Your task to perform on an android device: Open battery settings Image 0: 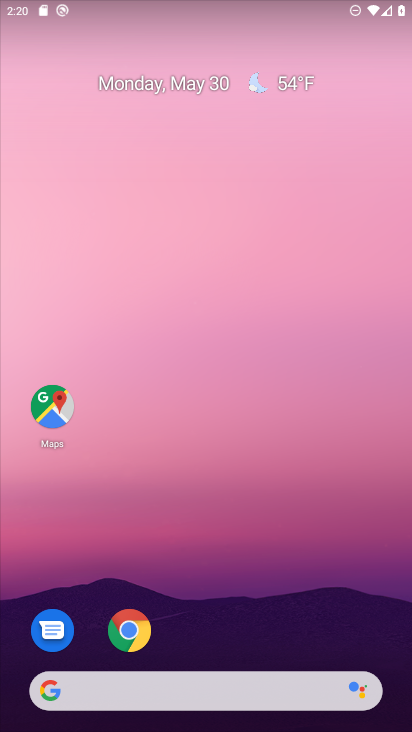
Step 0: press home button
Your task to perform on an android device: Open battery settings Image 1: 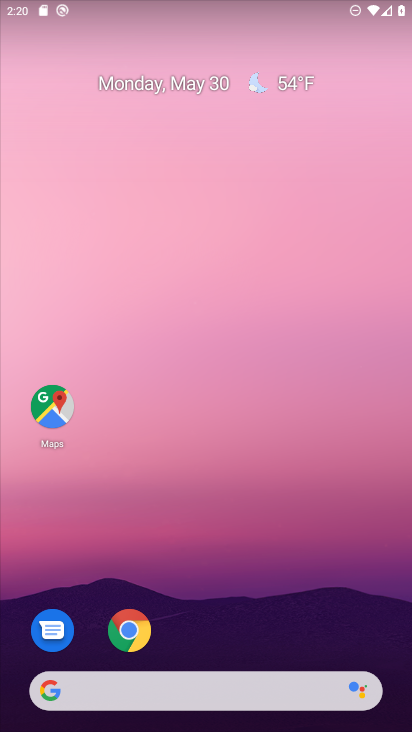
Step 1: drag from (270, 693) to (282, 51)
Your task to perform on an android device: Open battery settings Image 2: 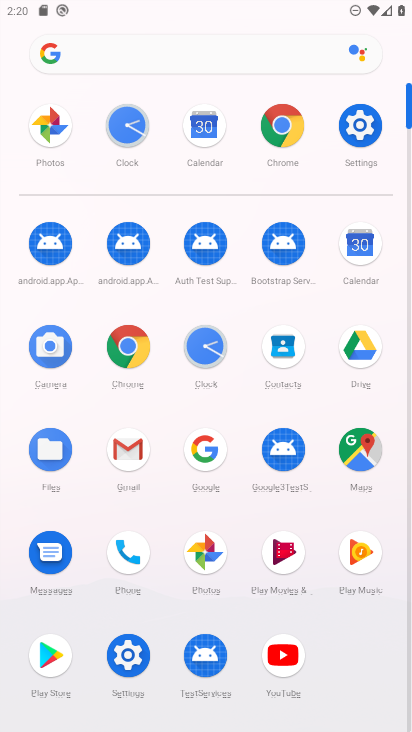
Step 2: click (126, 678)
Your task to perform on an android device: Open battery settings Image 3: 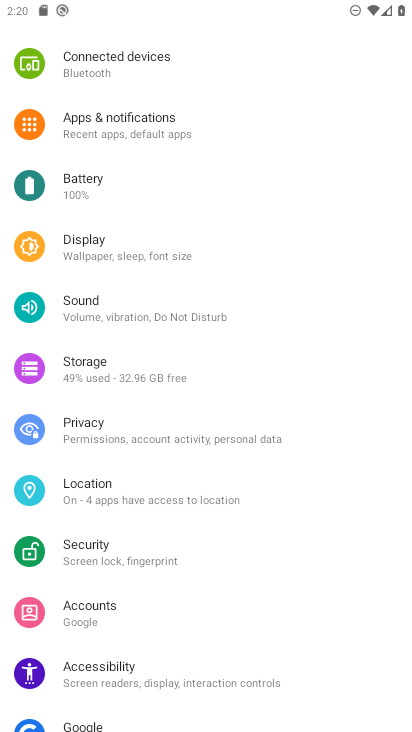
Step 3: click (90, 188)
Your task to perform on an android device: Open battery settings Image 4: 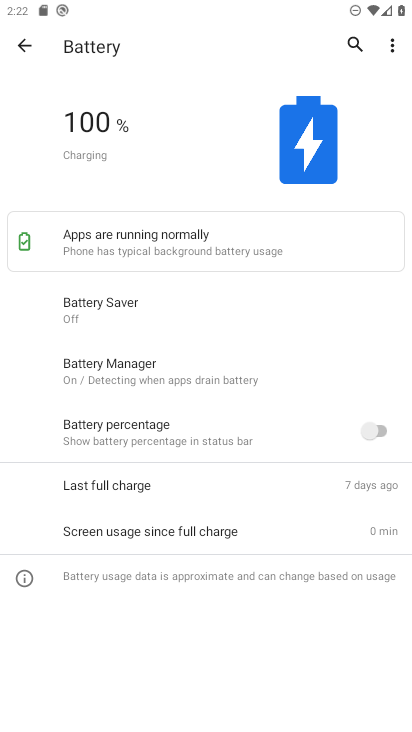
Step 4: task complete